Your task to perform on an android device: Open CNN.com Image 0: 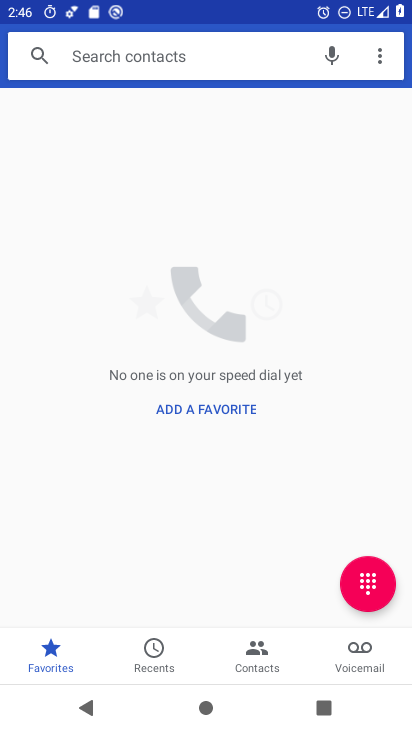
Step 0: press home button
Your task to perform on an android device: Open CNN.com Image 1: 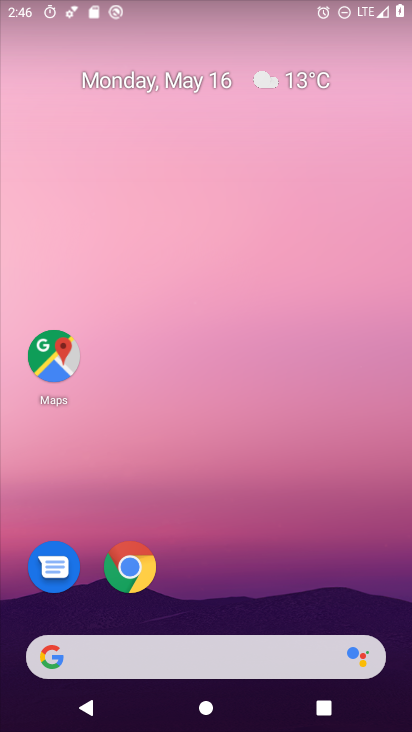
Step 1: click (110, 578)
Your task to perform on an android device: Open CNN.com Image 2: 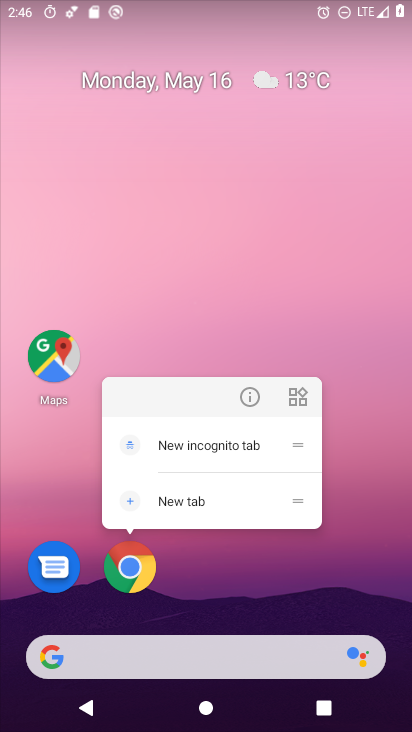
Step 2: click (148, 331)
Your task to perform on an android device: Open CNN.com Image 3: 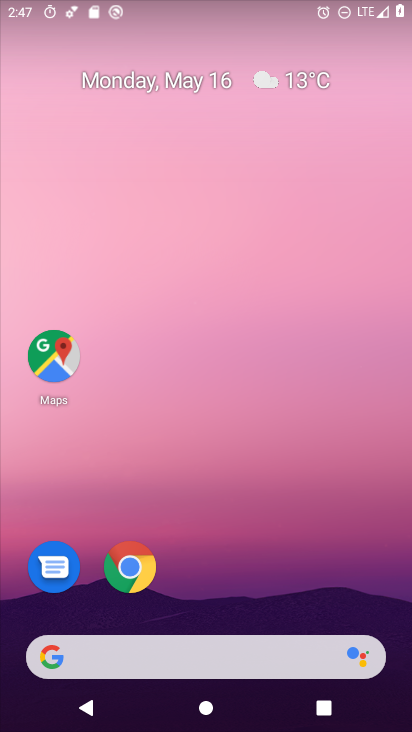
Step 3: click (119, 585)
Your task to perform on an android device: Open CNN.com Image 4: 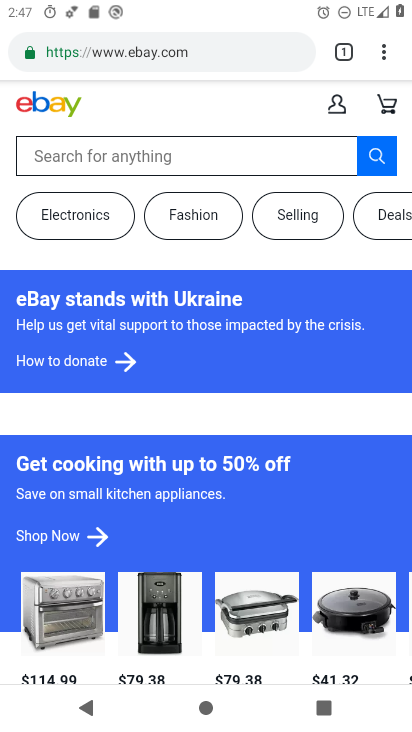
Step 4: click (179, 59)
Your task to perform on an android device: Open CNN.com Image 5: 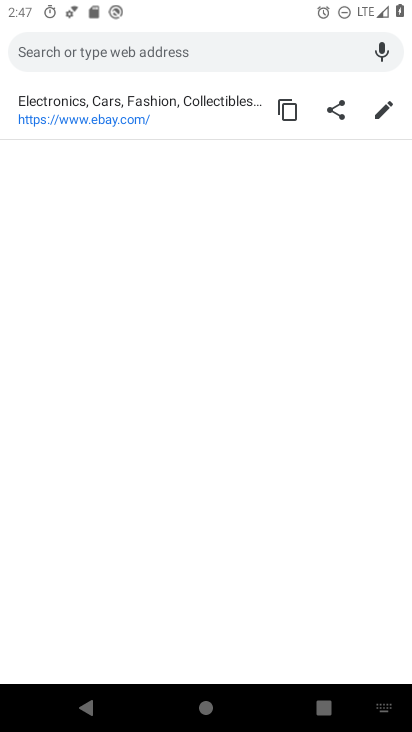
Step 5: click (179, 59)
Your task to perform on an android device: Open CNN.com Image 6: 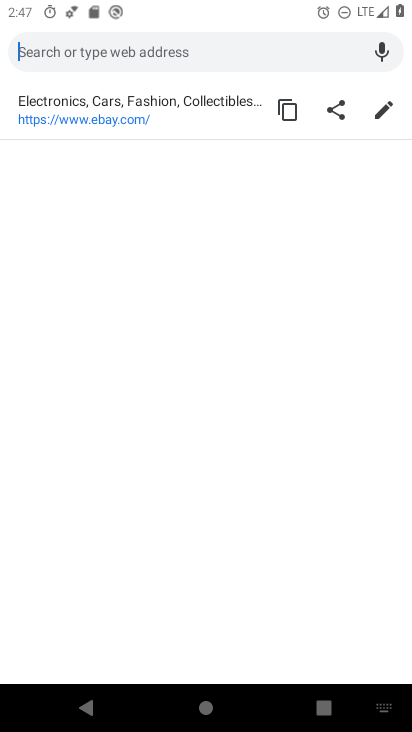
Step 6: click (264, 125)
Your task to perform on an android device: Open CNN.com Image 7: 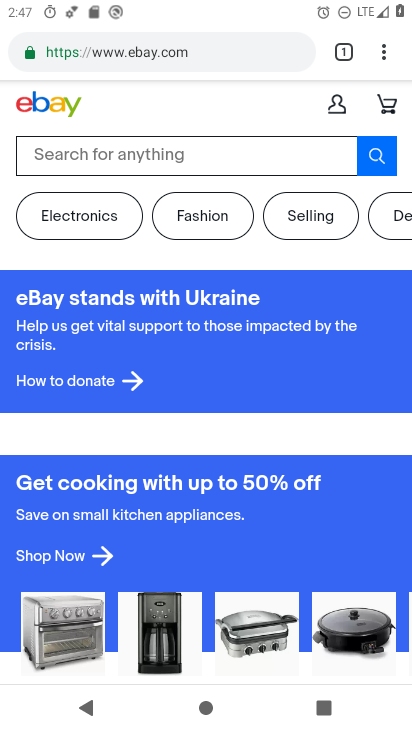
Step 7: click (165, 49)
Your task to perform on an android device: Open CNN.com Image 8: 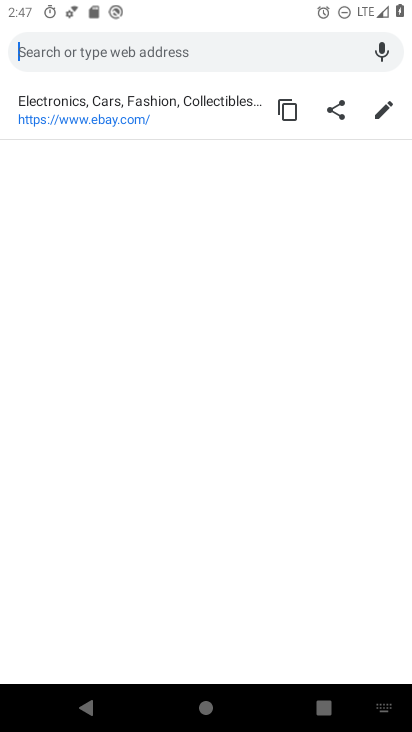
Step 8: click (176, 48)
Your task to perform on an android device: Open CNN.com Image 9: 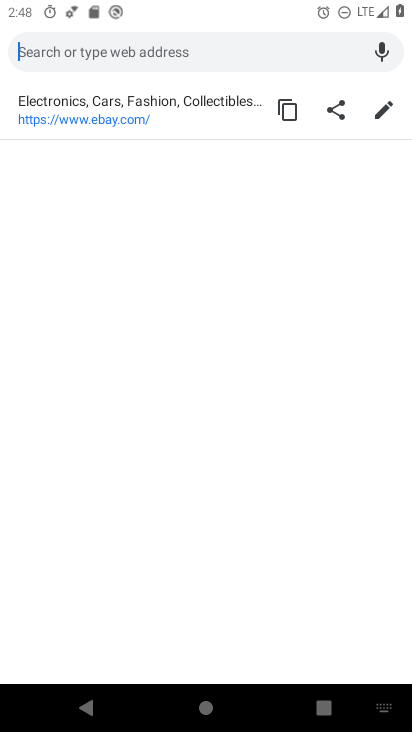
Step 9: click (222, 48)
Your task to perform on an android device: Open CNN.com Image 10: 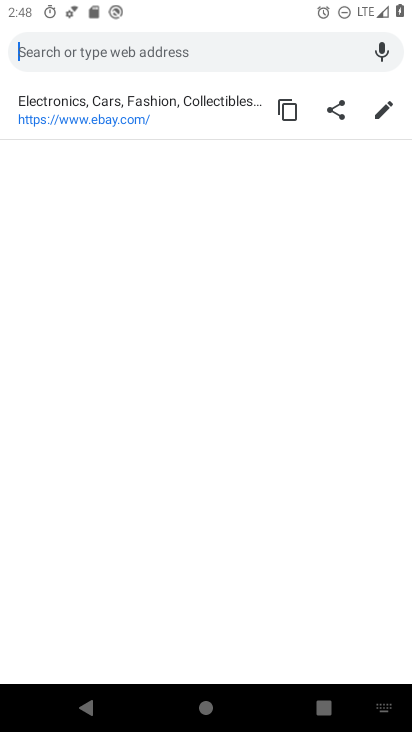
Step 10: type " CNN.com"
Your task to perform on an android device: Open CNN.com Image 11: 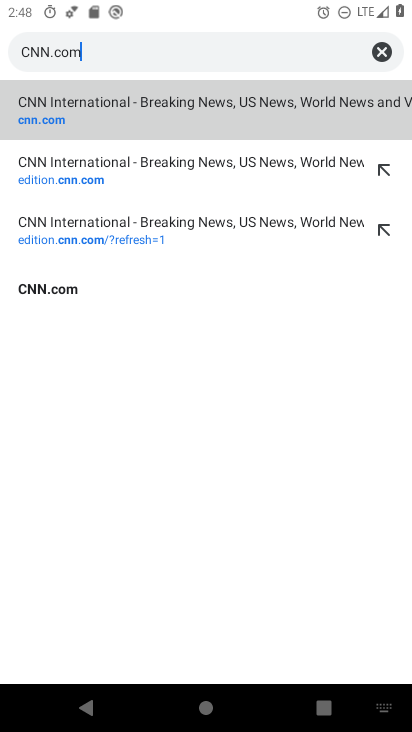
Step 11: click (46, 110)
Your task to perform on an android device: Open CNN.com Image 12: 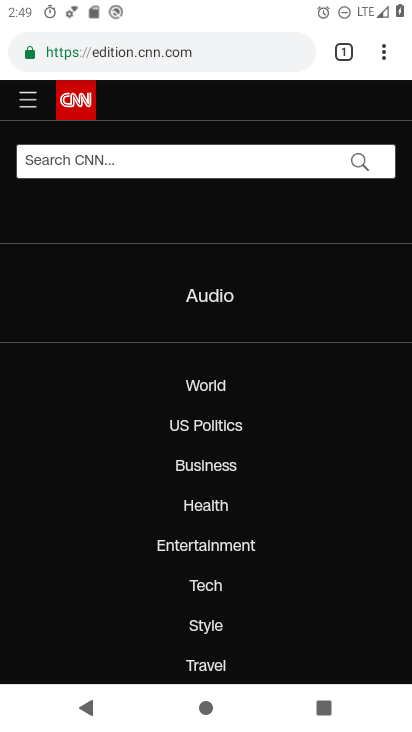
Step 12: task complete